Your task to perform on an android device: turn off priority inbox in the gmail app Image 0: 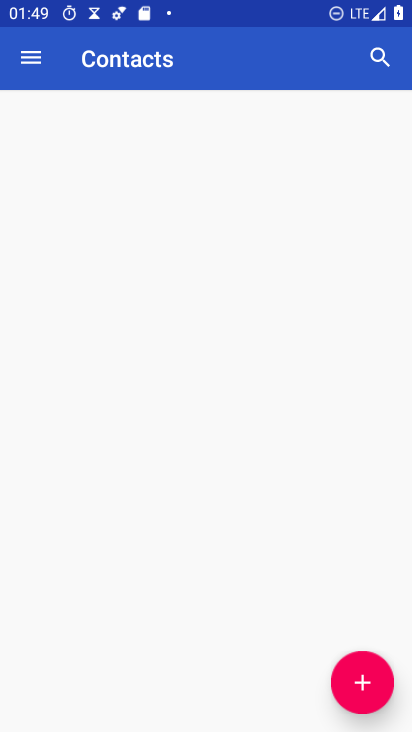
Step 0: click (54, 376)
Your task to perform on an android device: turn off priority inbox in the gmail app Image 1: 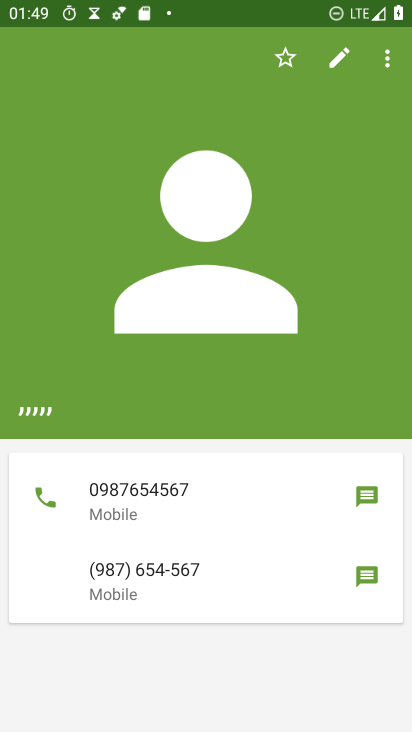
Step 1: press home button
Your task to perform on an android device: turn off priority inbox in the gmail app Image 2: 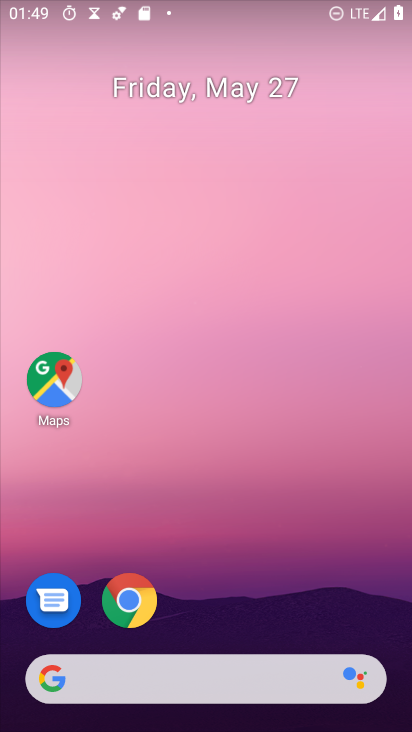
Step 2: drag from (266, 575) to (209, 76)
Your task to perform on an android device: turn off priority inbox in the gmail app Image 3: 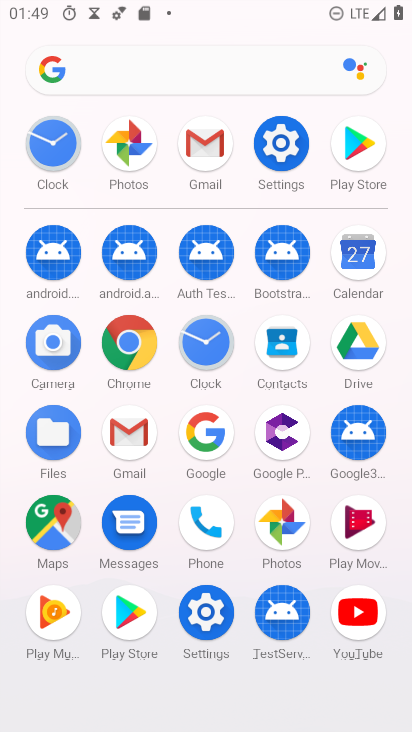
Step 3: click (212, 156)
Your task to perform on an android device: turn off priority inbox in the gmail app Image 4: 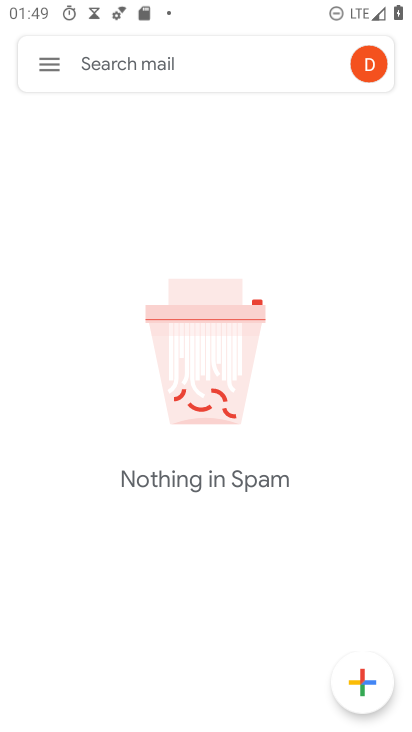
Step 4: click (39, 69)
Your task to perform on an android device: turn off priority inbox in the gmail app Image 5: 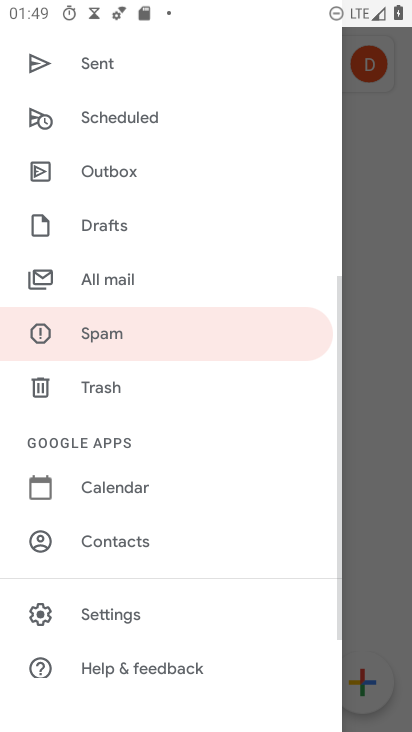
Step 5: drag from (120, 192) to (117, 632)
Your task to perform on an android device: turn off priority inbox in the gmail app Image 6: 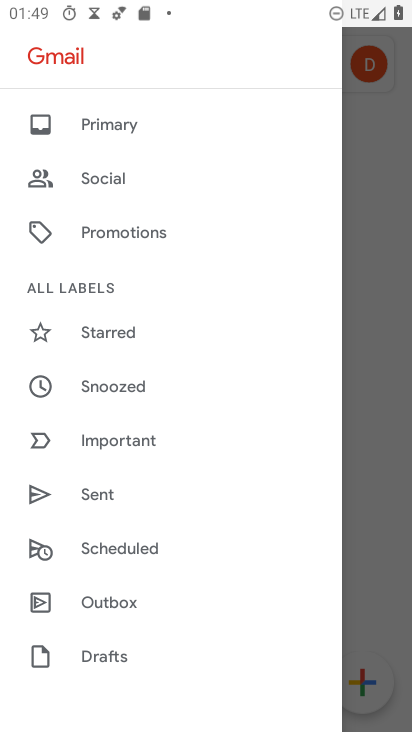
Step 6: click (134, 131)
Your task to perform on an android device: turn off priority inbox in the gmail app Image 7: 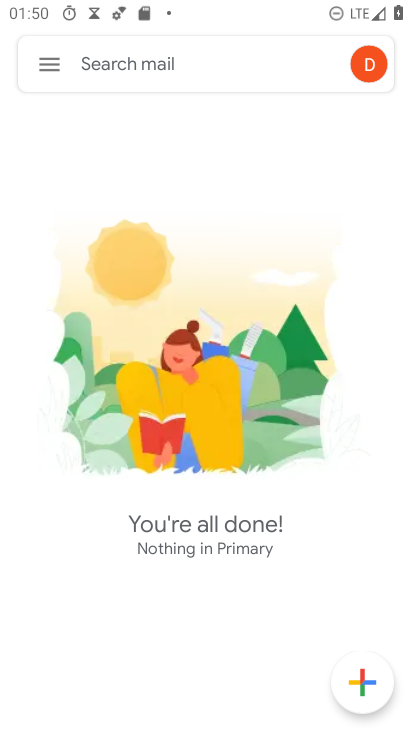
Step 7: click (49, 55)
Your task to perform on an android device: turn off priority inbox in the gmail app Image 8: 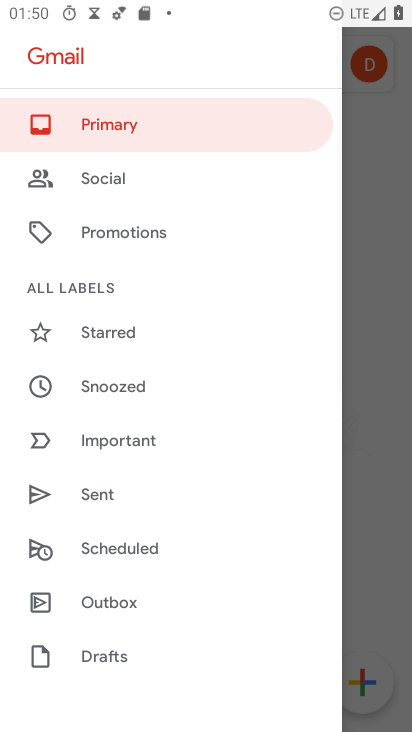
Step 8: drag from (146, 473) to (186, 131)
Your task to perform on an android device: turn off priority inbox in the gmail app Image 9: 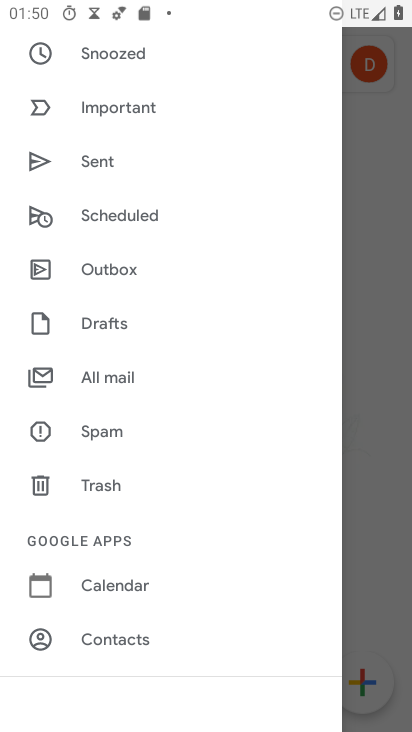
Step 9: drag from (120, 539) to (131, 77)
Your task to perform on an android device: turn off priority inbox in the gmail app Image 10: 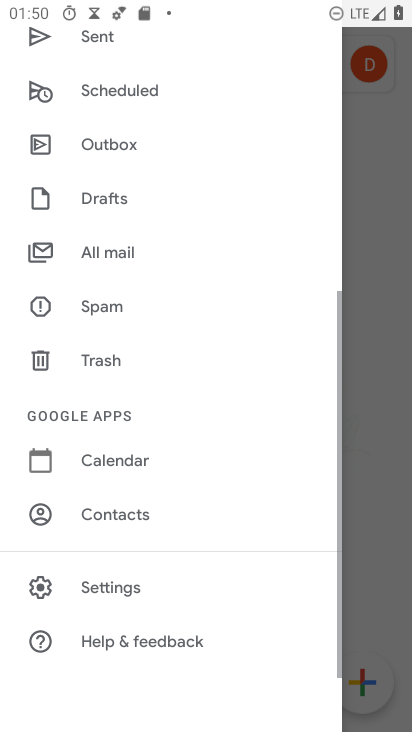
Step 10: click (87, 588)
Your task to perform on an android device: turn off priority inbox in the gmail app Image 11: 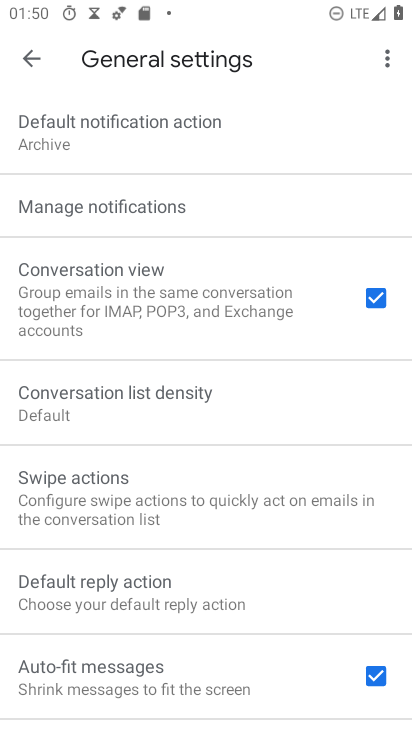
Step 11: drag from (136, 527) to (147, 102)
Your task to perform on an android device: turn off priority inbox in the gmail app Image 12: 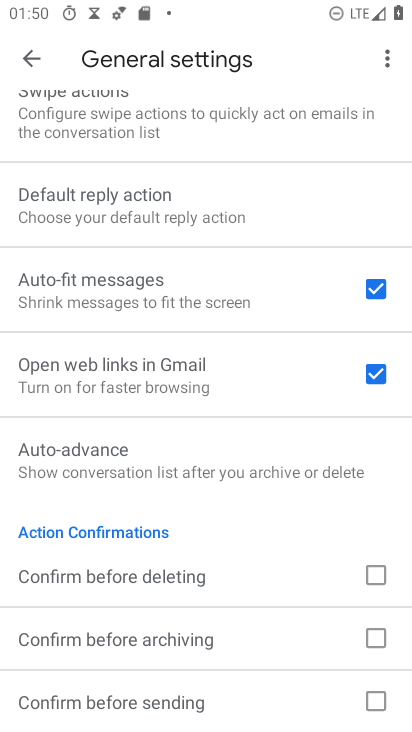
Step 12: drag from (103, 557) to (104, 465)
Your task to perform on an android device: turn off priority inbox in the gmail app Image 13: 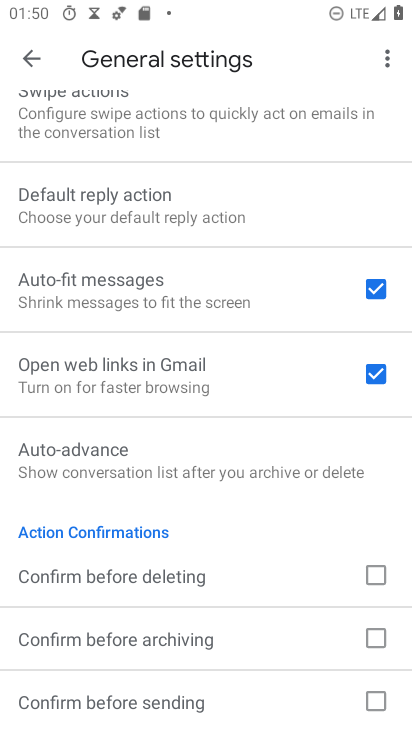
Step 13: click (126, 516)
Your task to perform on an android device: turn off priority inbox in the gmail app Image 14: 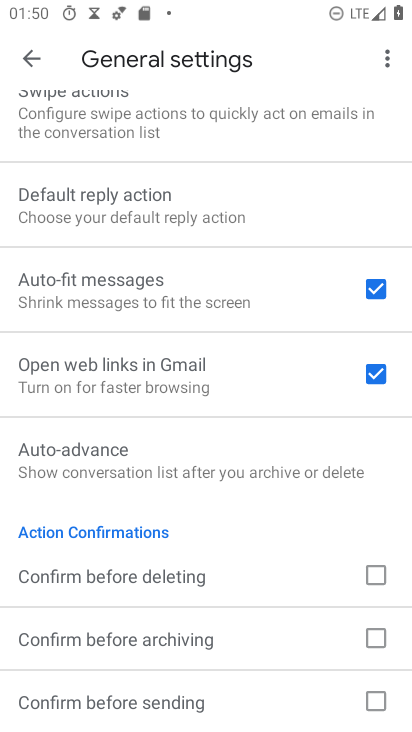
Step 14: task complete